Your task to perform on an android device: turn off notifications in google photos Image 0: 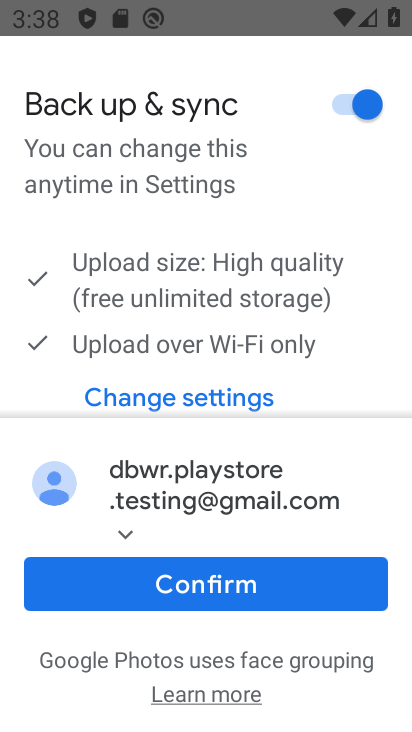
Step 0: press home button
Your task to perform on an android device: turn off notifications in google photos Image 1: 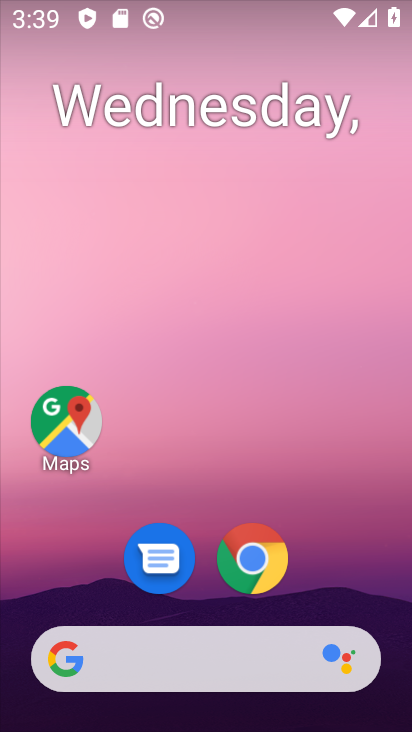
Step 1: drag from (211, 697) to (233, 266)
Your task to perform on an android device: turn off notifications in google photos Image 2: 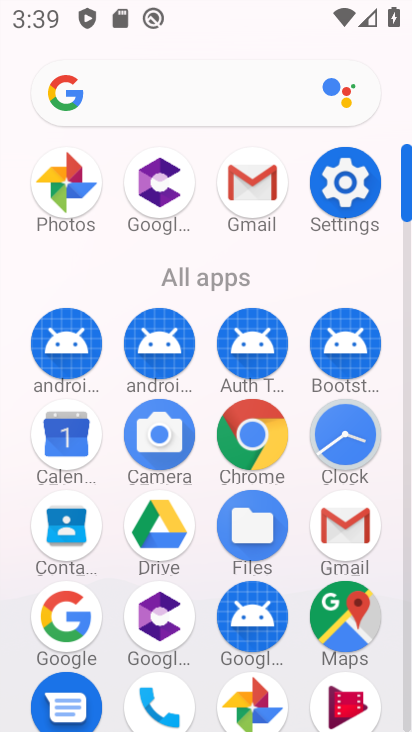
Step 2: click (251, 689)
Your task to perform on an android device: turn off notifications in google photos Image 3: 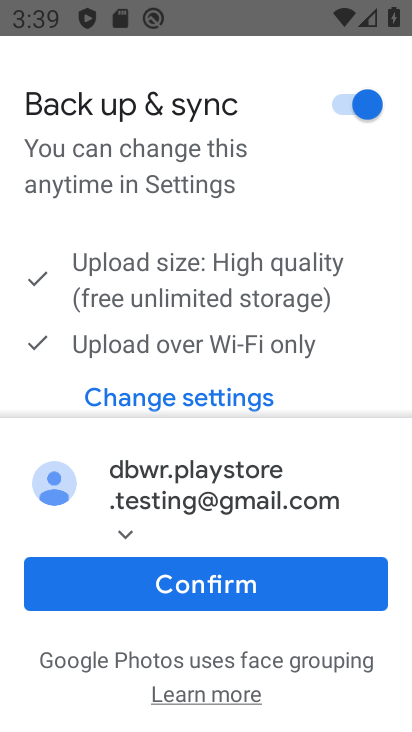
Step 3: click (162, 592)
Your task to perform on an android device: turn off notifications in google photos Image 4: 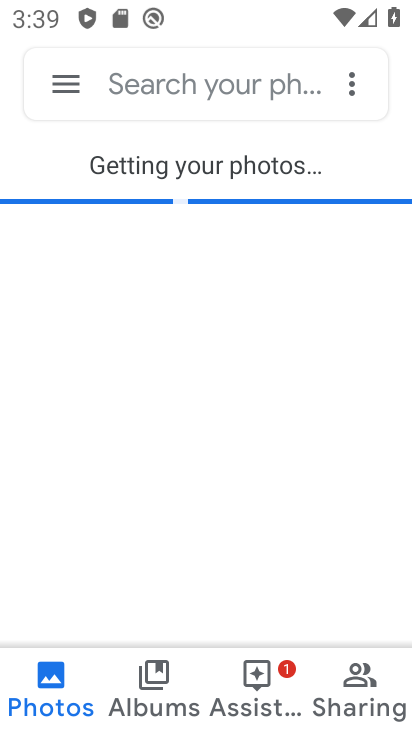
Step 4: click (57, 97)
Your task to perform on an android device: turn off notifications in google photos Image 5: 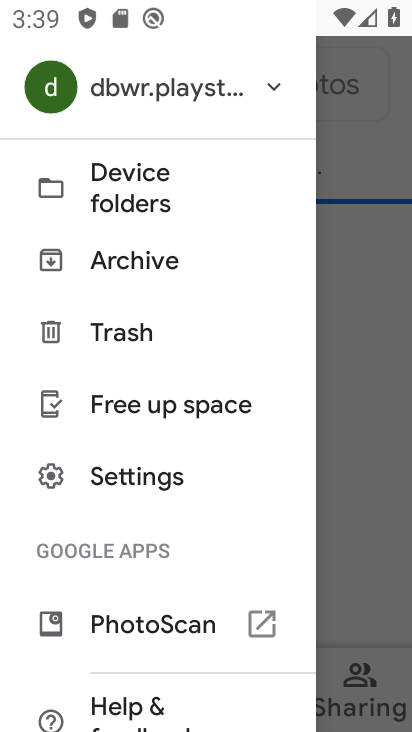
Step 5: click (138, 482)
Your task to perform on an android device: turn off notifications in google photos Image 6: 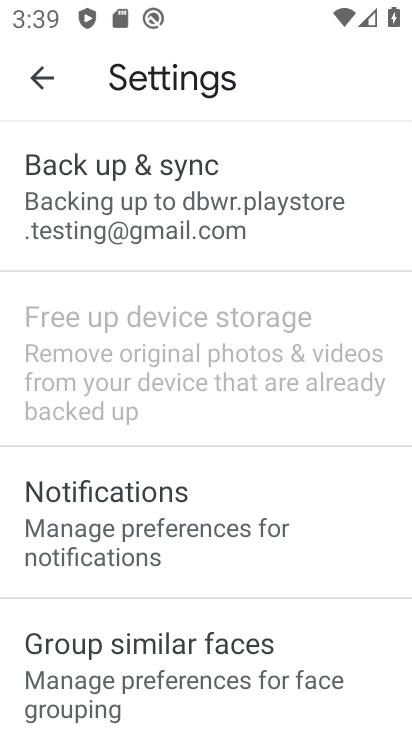
Step 6: click (146, 517)
Your task to perform on an android device: turn off notifications in google photos Image 7: 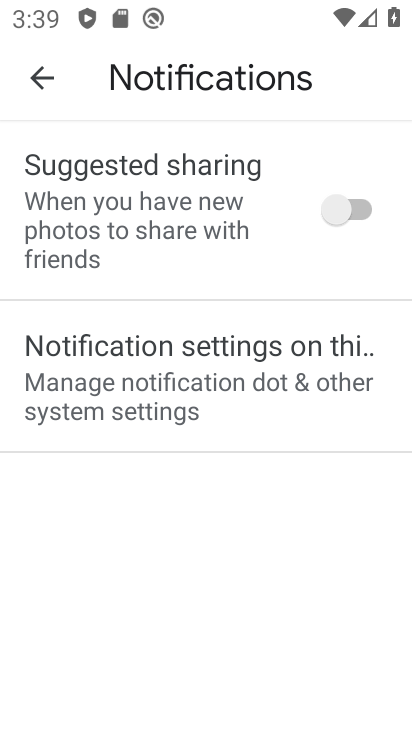
Step 7: click (296, 290)
Your task to perform on an android device: turn off notifications in google photos Image 8: 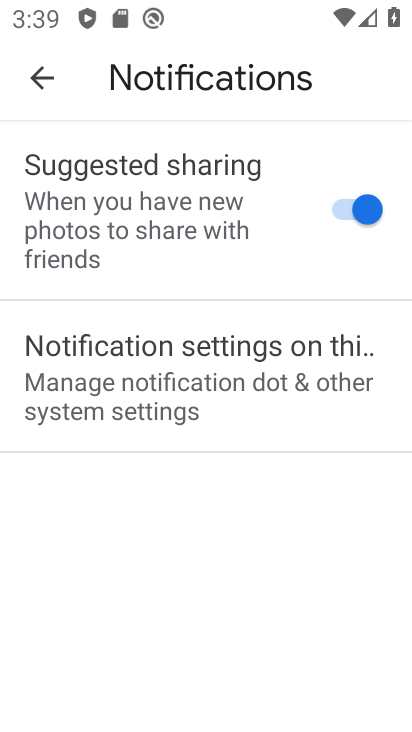
Step 8: click (253, 396)
Your task to perform on an android device: turn off notifications in google photos Image 9: 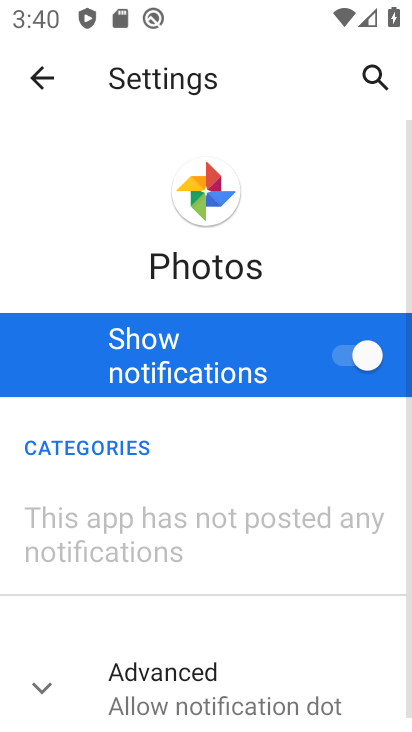
Step 9: click (342, 354)
Your task to perform on an android device: turn off notifications in google photos Image 10: 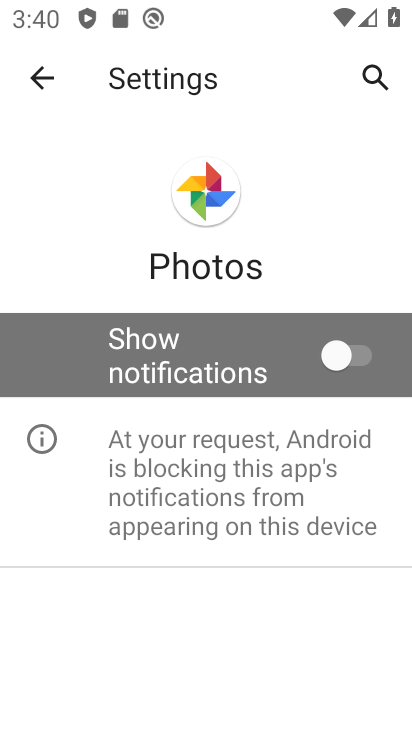
Step 10: task complete